Your task to perform on an android device: Open eBay Image 0: 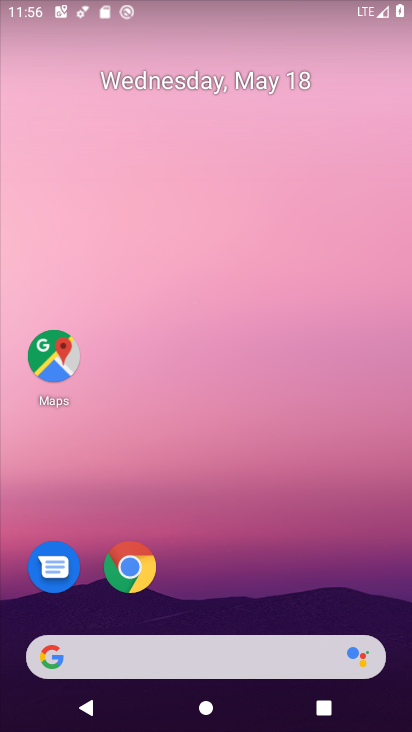
Step 0: drag from (284, 464) to (296, 128)
Your task to perform on an android device: Open eBay Image 1: 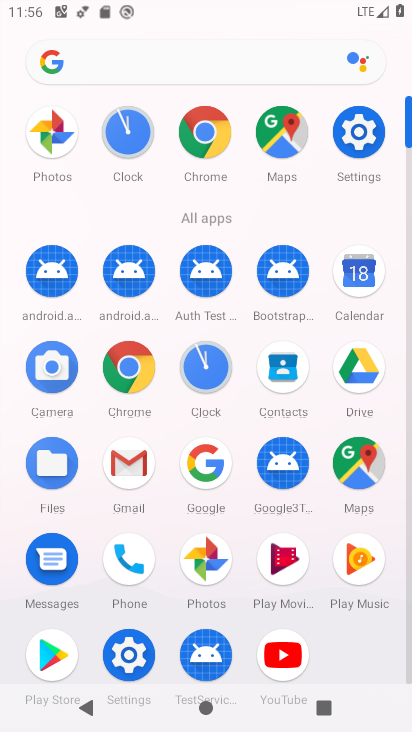
Step 1: click (203, 134)
Your task to perform on an android device: Open eBay Image 2: 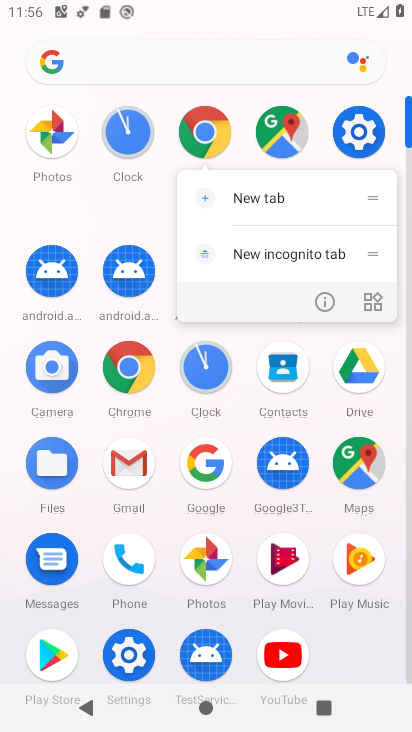
Step 2: click (203, 133)
Your task to perform on an android device: Open eBay Image 3: 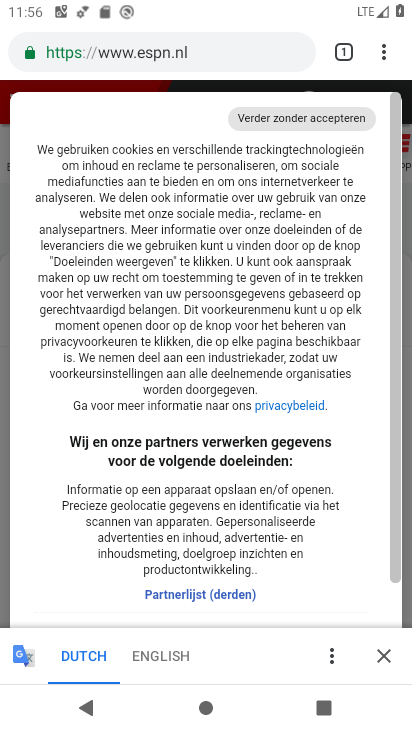
Step 3: click (169, 52)
Your task to perform on an android device: Open eBay Image 4: 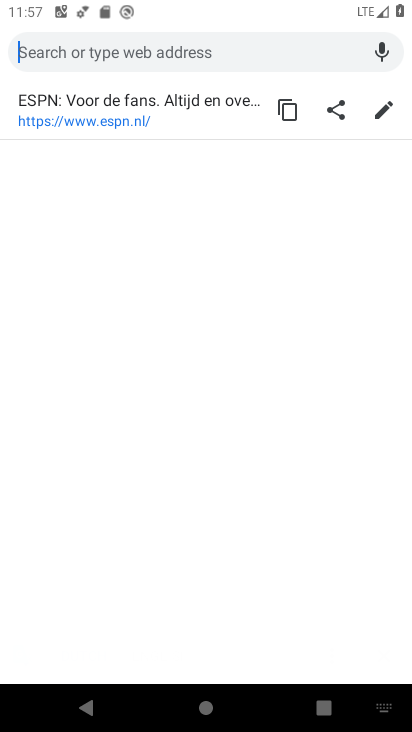
Step 4: type "ebay"
Your task to perform on an android device: Open eBay Image 5: 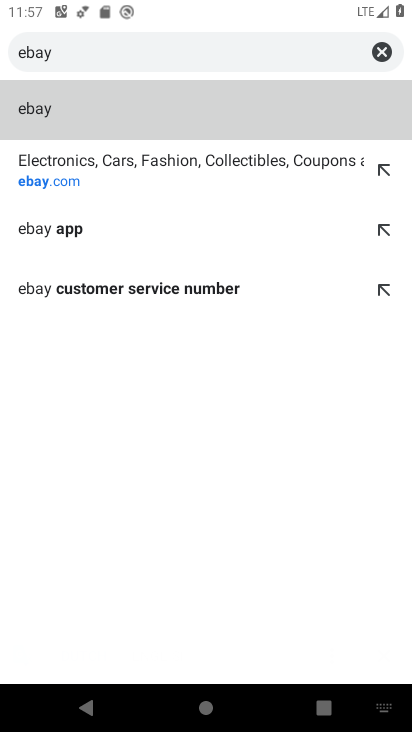
Step 5: click (38, 185)
Your task to perform on an android device: Open eBay Image 6: 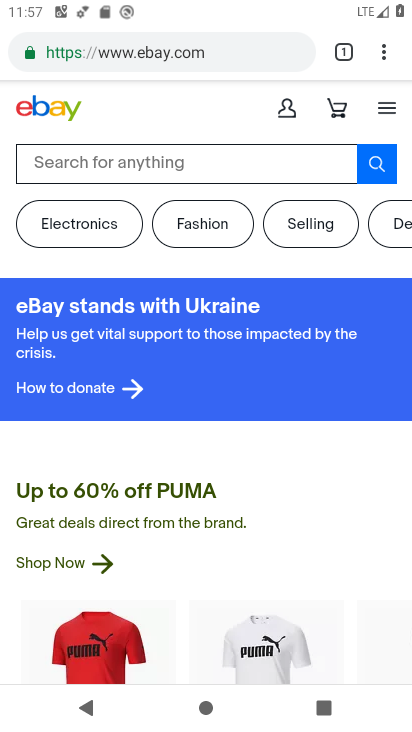
Step 6: task complete